Your task to perform on an android device: Go to wifi settings Image 0: 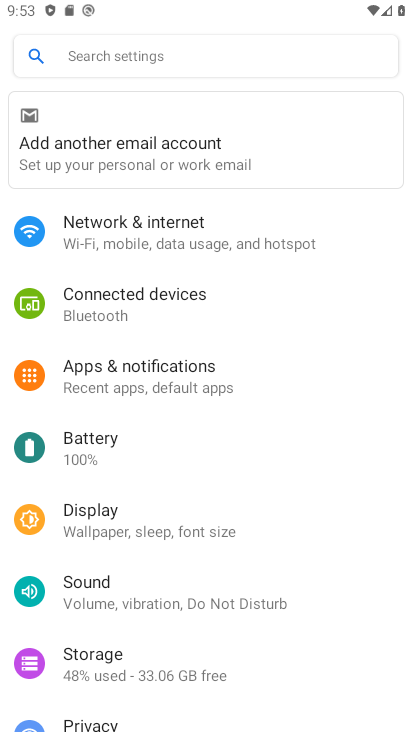
Step 0: click (170, 239)
Your task to perform on an android device: Go to wifi settings Image 1: 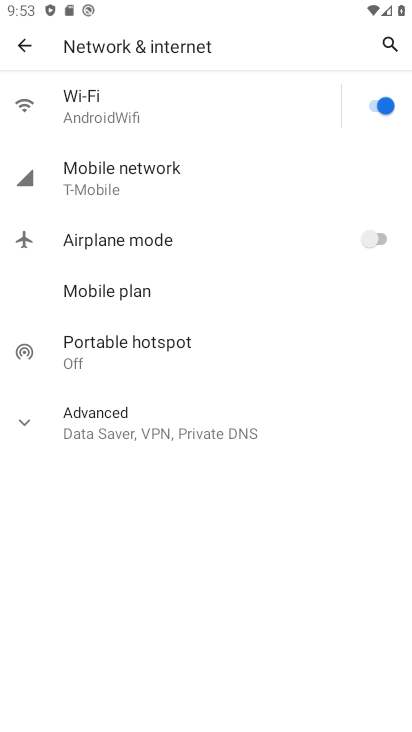
Step 1: click (81, 114)
Your task to perform on an android device: Go to wifi settings Image 2: 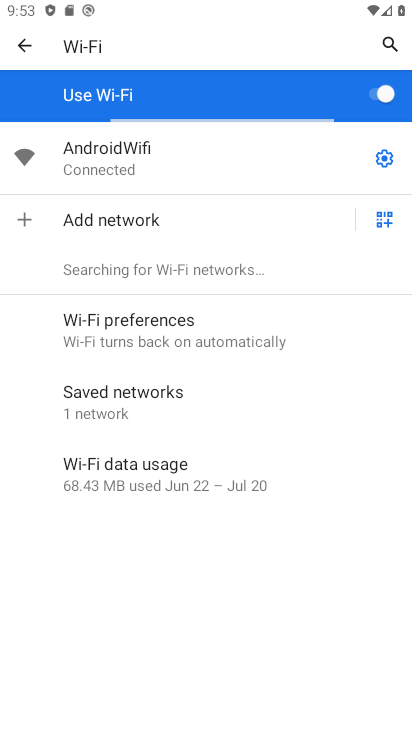
Step 2: task complete